Your task to perform on an android device: Open the calendar app, open the side menu, and click the "Day" option Image 0: 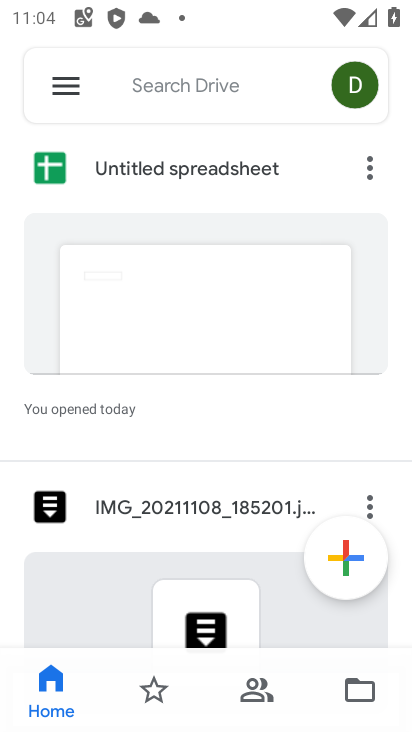
Step 0: press home button
Your task to perform on an android device: Open the calendar app, open the side menu, and click the "Day" option Image 1: 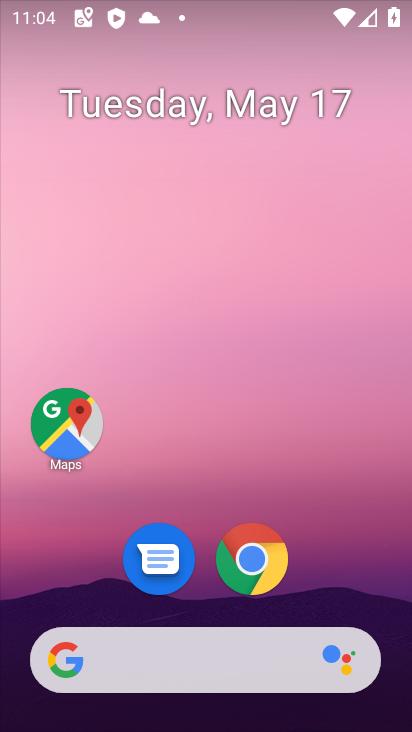
Step 1: drag from (251, 640) to (245, 149)
Your task to perform on an android device: Open the calendar app, open the side menu, and click the "Day" option Image 2: 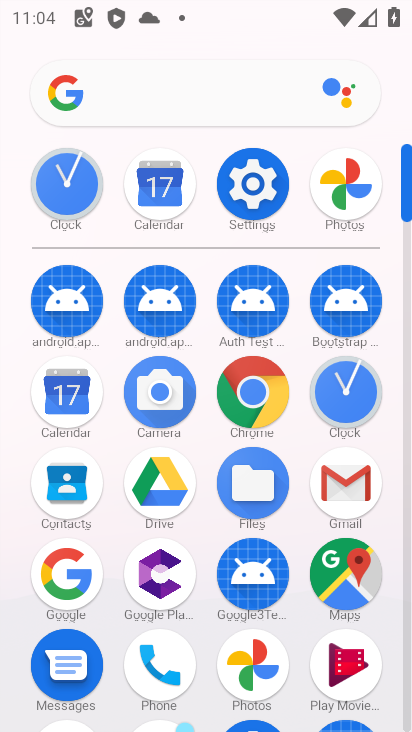
Step 2: click (66, 400)
Your task to perform on an android device: Open the calendar app, open the side menu, and click the "Day" option Image 3: 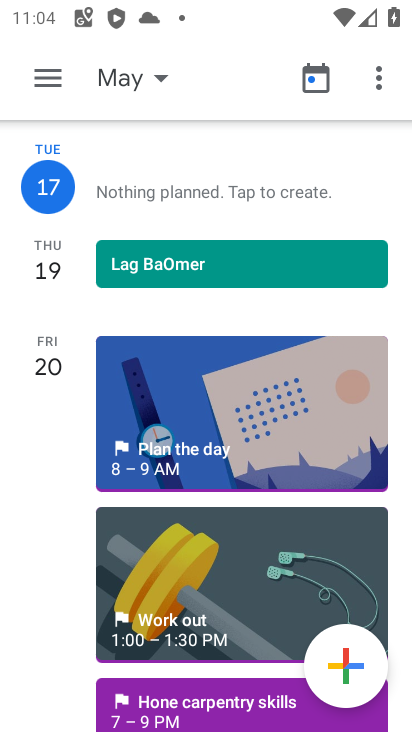
Step 3: click (40, 77)
Your task to perform on an android device: Open the calendar app, open the side menu, and click the "Day" option Image 4: 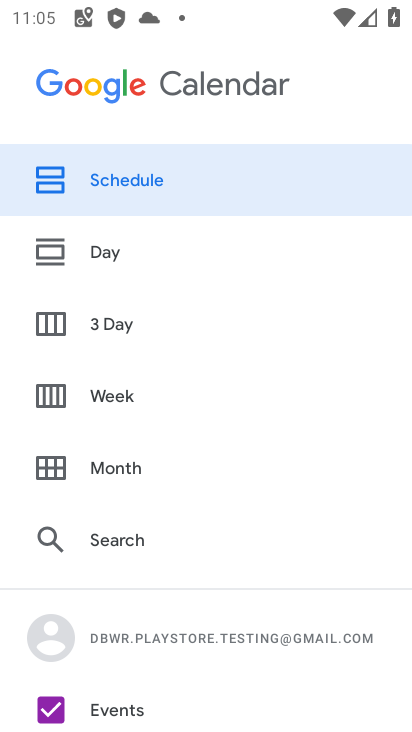
Step 4: click (110, 256)
Your task to perform on an android device: Open the calendar app, open the side menu, and click the "Day" option Image 5: 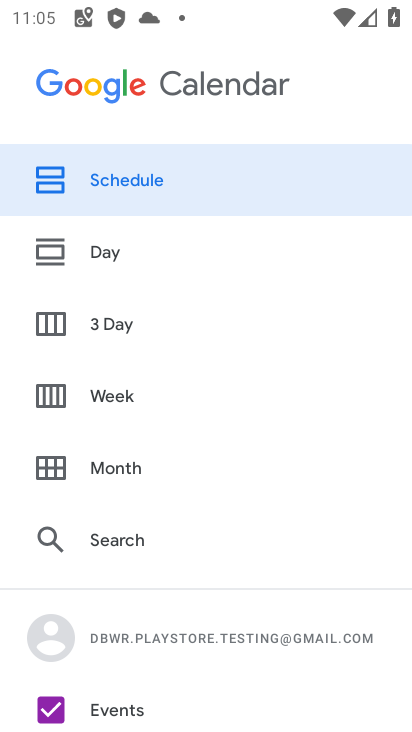
Step 5: click (173, 264)
Your task to perform on an android device: Open the calendar app, open the side menu, and click the "Day" option Image 6: 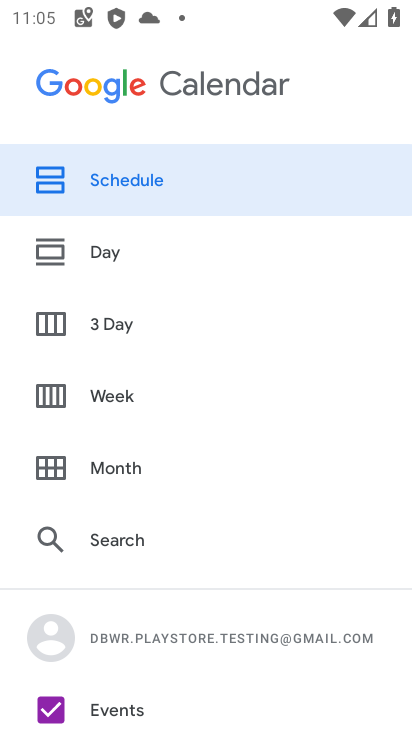
Step 6: click (139, 258)
Your task to perform on an android device: Open the calendar app, open the side menu, and click the "Day" option Image 7: 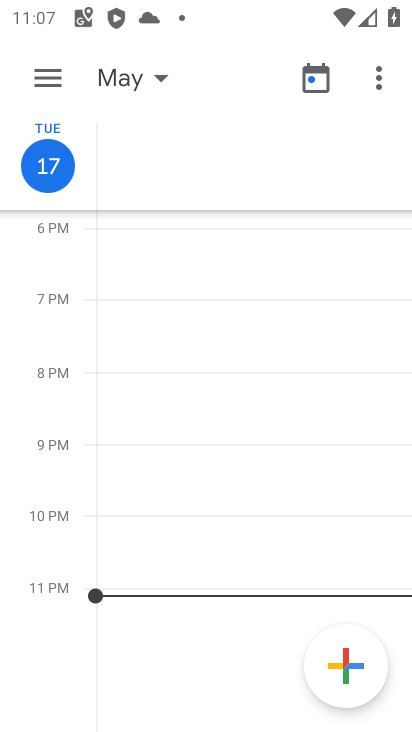
Step 7: task complete